Your task to perform on an android device: Open calendar and show me the second week of next month Image 0: 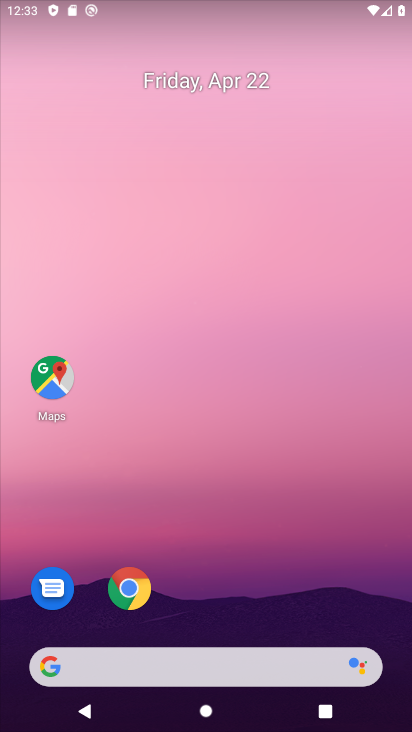
Step 0: drag from (242, 636) to (328, 117)
Your task to perform on an android device: Open calendar and show me the second week of next month Image 1: 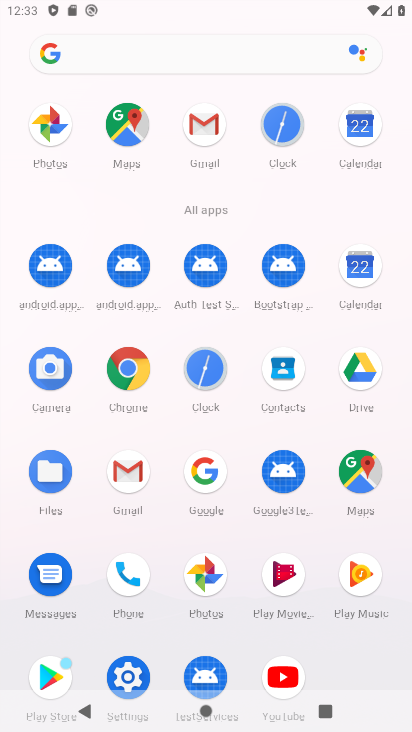
Step 1: click (355, 263)
Your task to perform on an android device: Open calendar and show me the second week of next month Image 2: 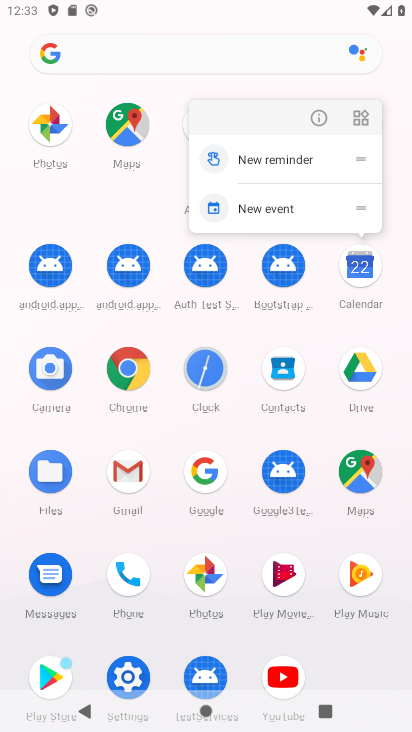
Step 2: click (362, 269)
Your task to perform on an android device: Open calendar and show me the second week of next month Image 3: 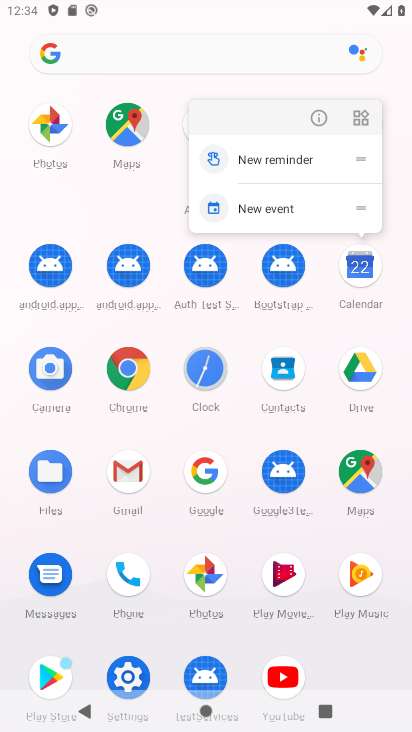
Step 3: click (355, 271)
Your task to perform on an android device: Open calendar and show me the second week of next month Image 4: 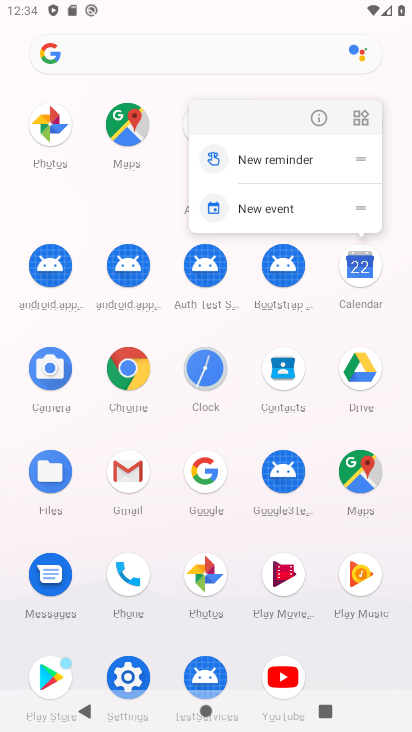
Step 4: click (369, 265)
Your task to perform on an android device: Open calendar and show me the second week of next month Image 5: 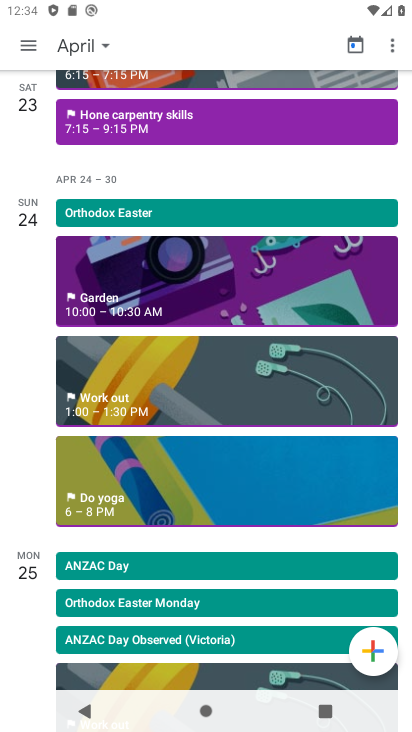
Step 5: click (106, 44)
Your task to perform on an android device: Open calendar and show me the second week of next month Image 6: 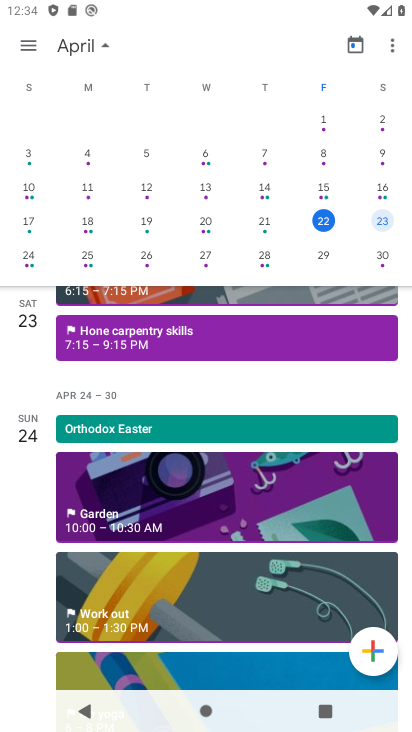
Step 6: drag from (385, 197) to (21, 157)
Your task to perform on an android device: Open calendar and show me the second week of next month Image 7: 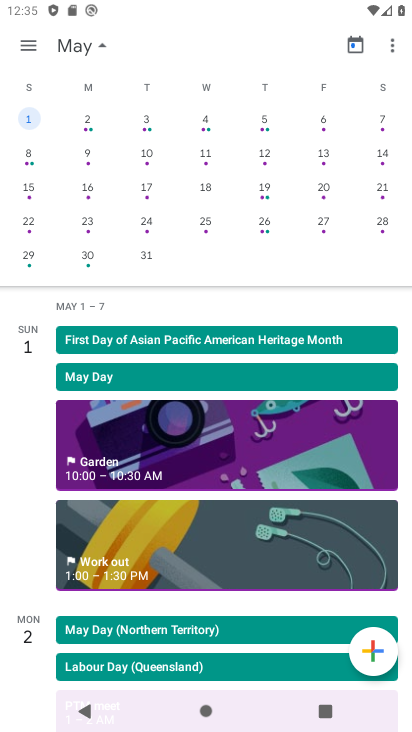
Step 7: click (86, 148)
Your task to perform on an android device: Open calendar and show me the second week of next month Image 8: 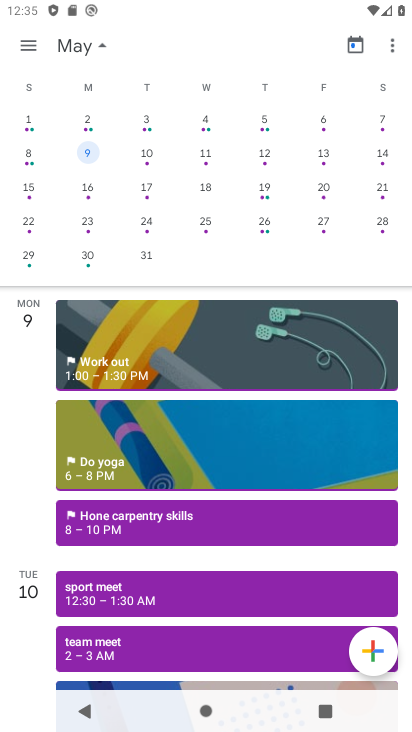
Step 8: task complete